Your task to perform on an android device: Open privacy settings Image 0: 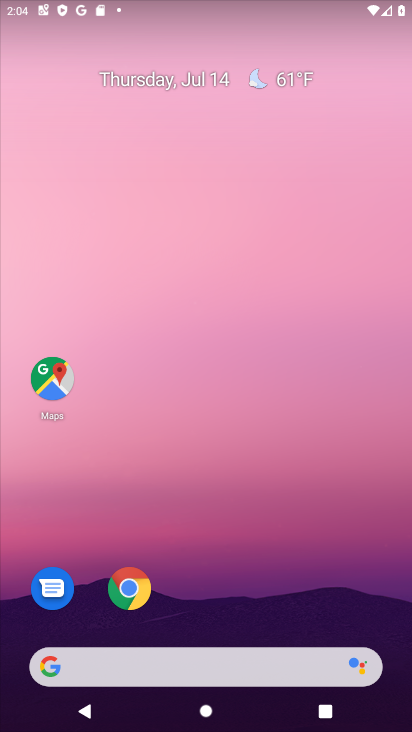
Step 0: click (126, 590)
Your task to perform on an android device: Open privacy settings Image 1: 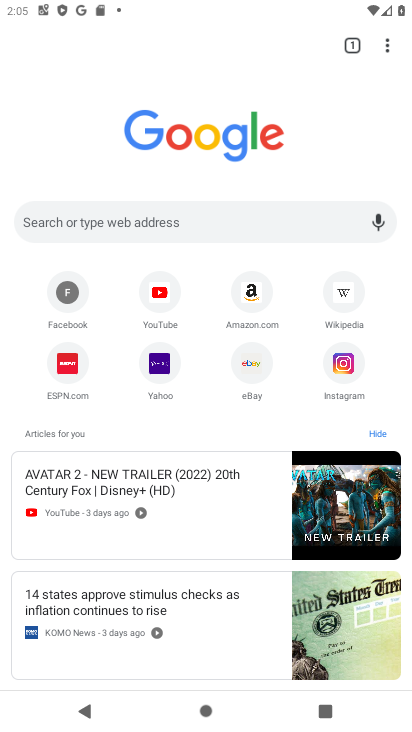
Step 1: click (382, 46)
Your task to perform on an android device: Open privacy settings Image 2: 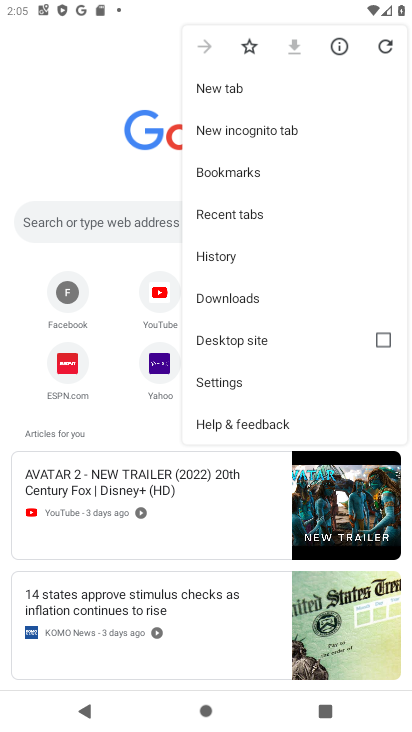
Step 2: click (249, 386)
Your task to perform on an android device: Open privacy settings Image 3: 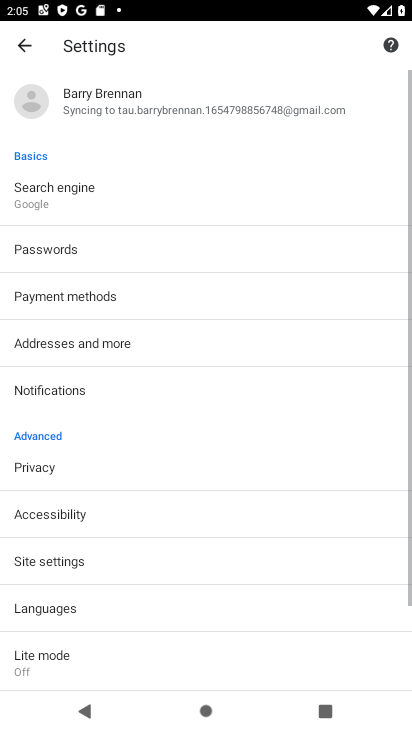
Step 3: click (94, 467)
Your task to perform on an android device: Open privacy settings Image 4: 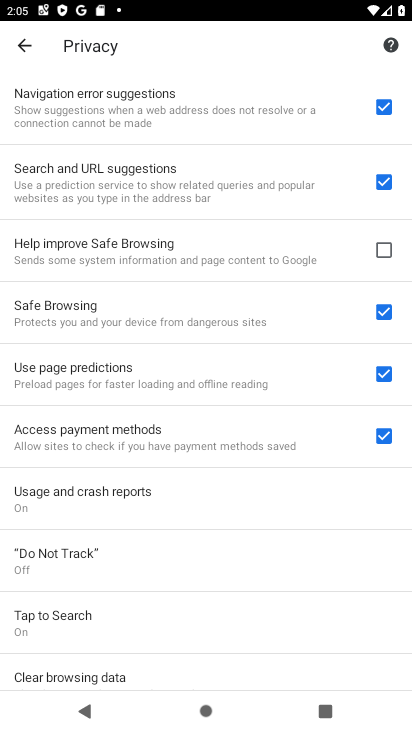
Step 4: task complete